Your task to perform on an android device: check the backup settings in the google photos Image 0: 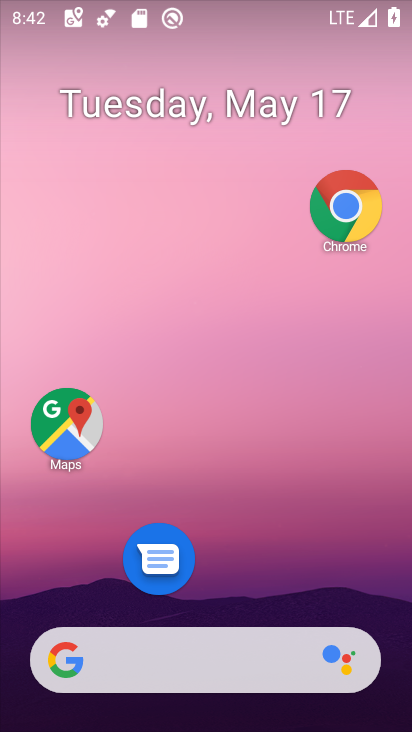
Step 0: drag from (206, 656) to (284, 279)
Your task to perform on an android device: check the backup settings in the google photos Image 1: 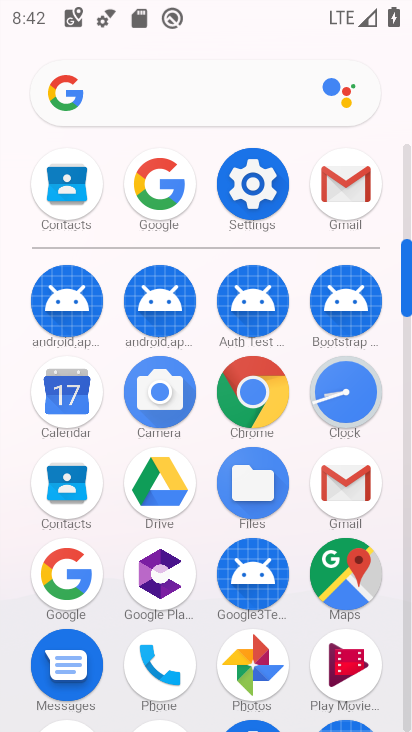
Step 1: click (277, 660)
Your task to perform on an android device: check the backup settings in the google photos Image 2: 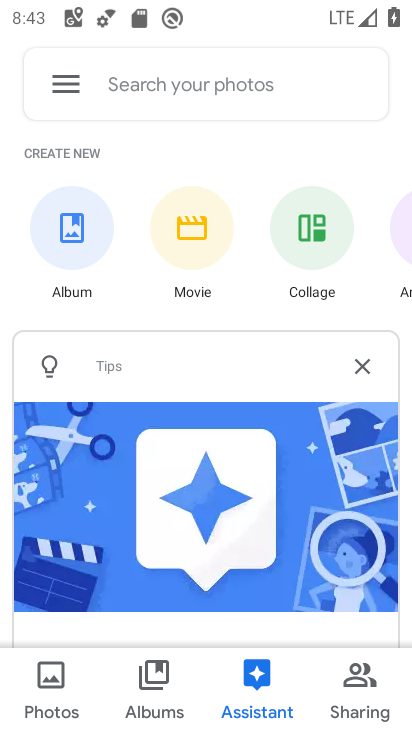
Step 2: click (64, 86)
Your task to perform on an android device: check the backup settings in the google photos Image 3: 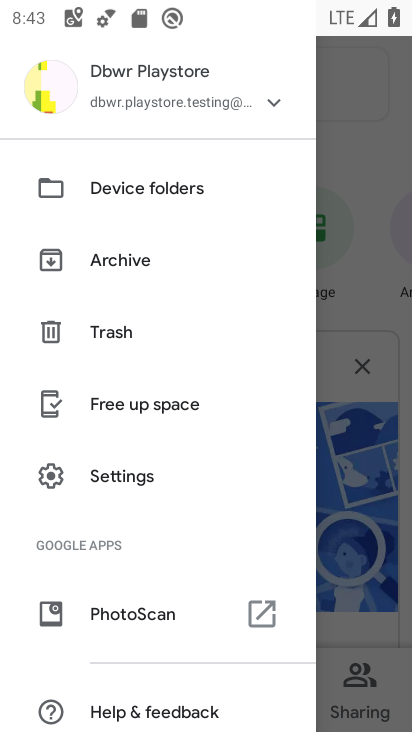
Step 3: click (136, 463)
Your task to perform on an android device: check the backup settings in the google photos Image 4: 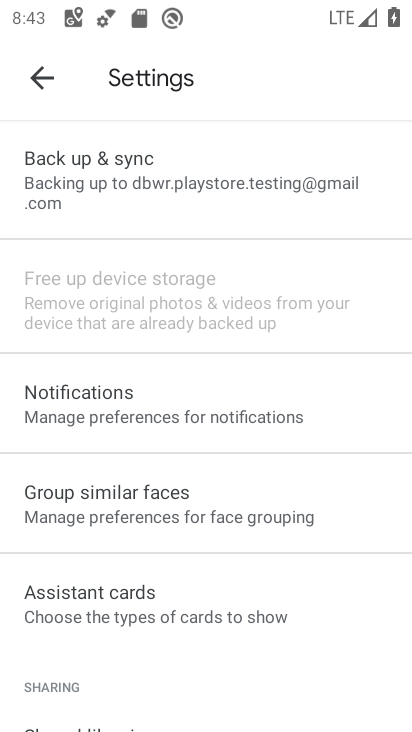
Step 4: click (139, 462)
Your task to perform on an android device: check the backup settings in the google photos Image 5: 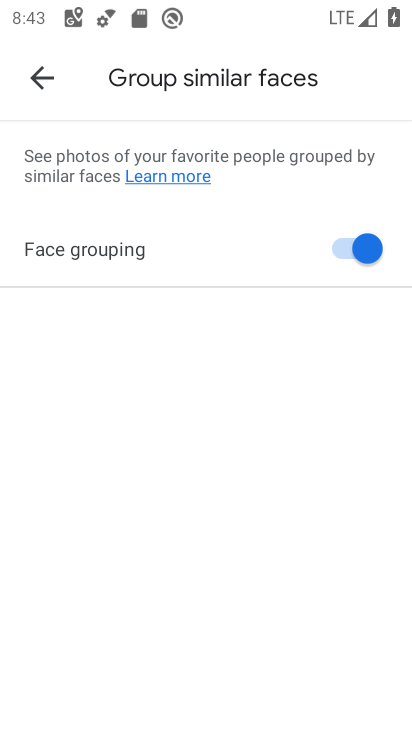
Step 5: click (36, 73)
Your task to perform on an android device: check the backup settings in the google photos Image 6: 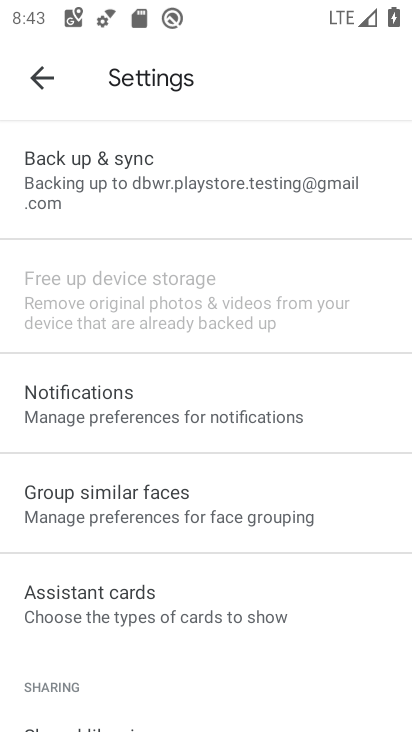
Step 6: click (151, 149)
Your task to perform on an android device: check the backup settings in the google photos Image 7: 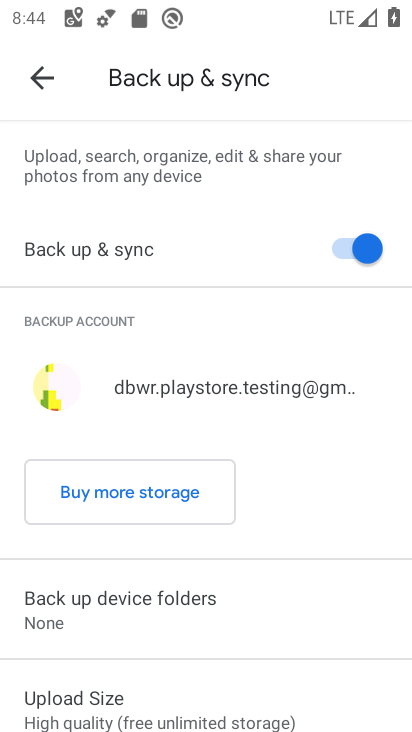
Step 7: task complete